Your task to perform on an android device: star an email in the gmail app Image 0: 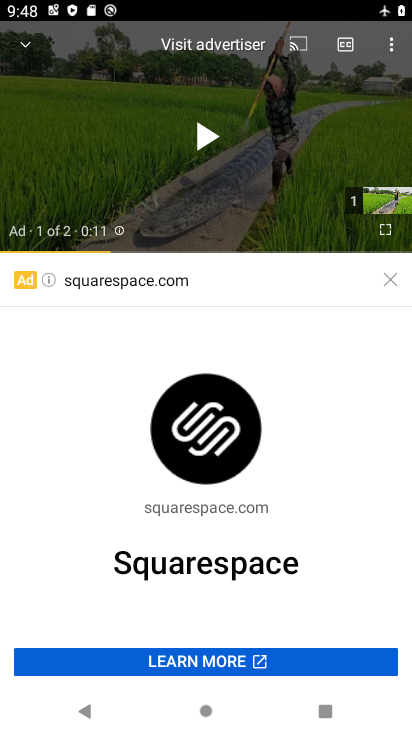
Step 0: press home button
Your task to perform on an android device: star an email in the gmail app Image 1: 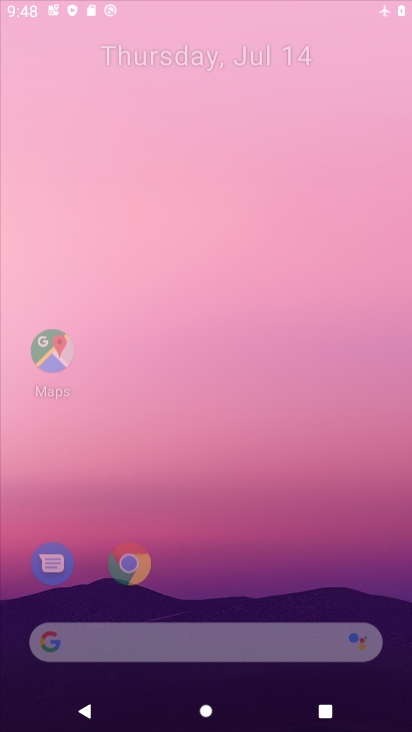
Step 1: drag from (402, 658) to (219, 14)
Your task to perform on an android device: star an email in the gmail app Image 2: 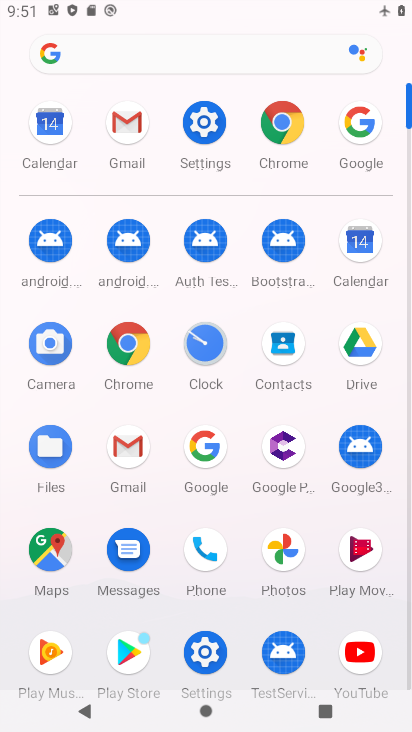
Step 2: click (129, 468)
Your task to perform on an android device: star an email in the gmail app Image 3: 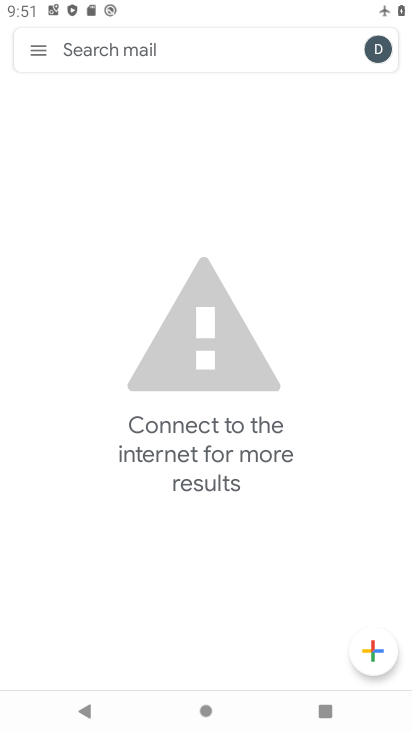
Step 3: task complete